Your task to perform on an android device: Clear the cart on bestbuy.com. Add "jbl flip 4" to the cart on bestbuy.com Image 0: 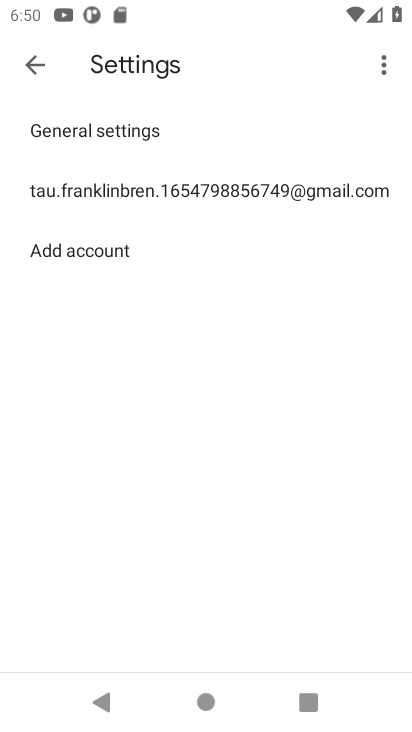
Step 0: press home button
Your task to perform on an android device: Clear the cart on bestbuy.com. Add "jbl flip 4" to the cart on bestbuy.com Image 1: 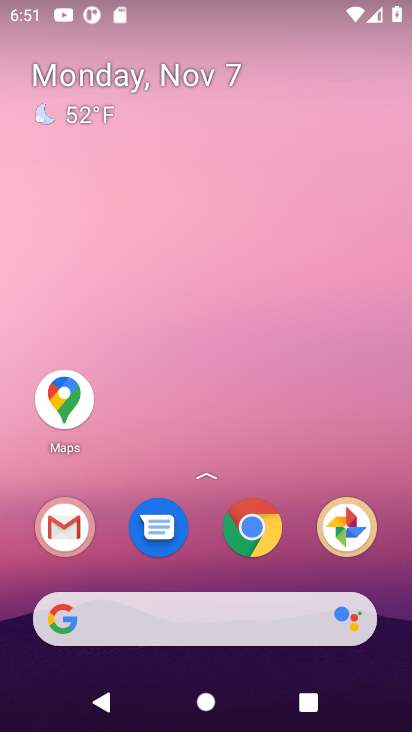
Step 1: click (247, 550)
Your task to perform on an android device: Clear the cart on bestbuy.com. Add "jbl flip 4" to the cart on bestbuy.com Image 2: 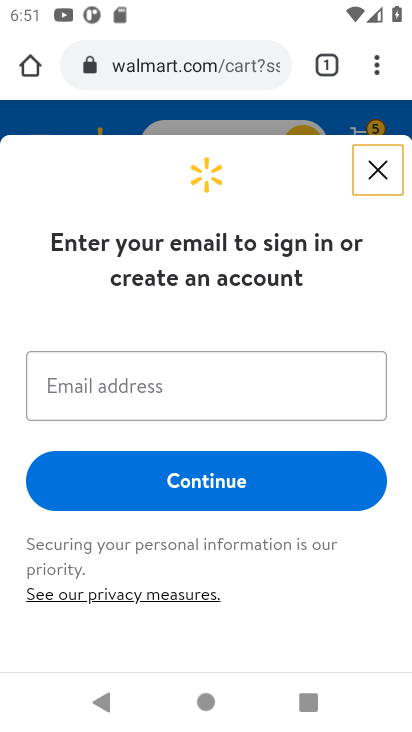
Step 2: click (131, 71)
Your task to perform on an android device: Clear the cart on bestbuy.com. Add "jbl flip 4" to the cart on bestbuy.com Image 3: 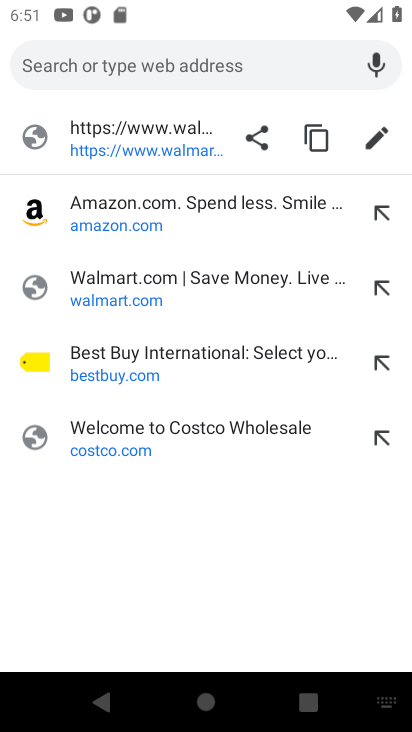
Step 3: type "bestbuy.com"
Your task to perform on an android device: Clear the cart on bestbuy.com. Add "jbl flip 4" to the cart on bestbuy.com Image 4: 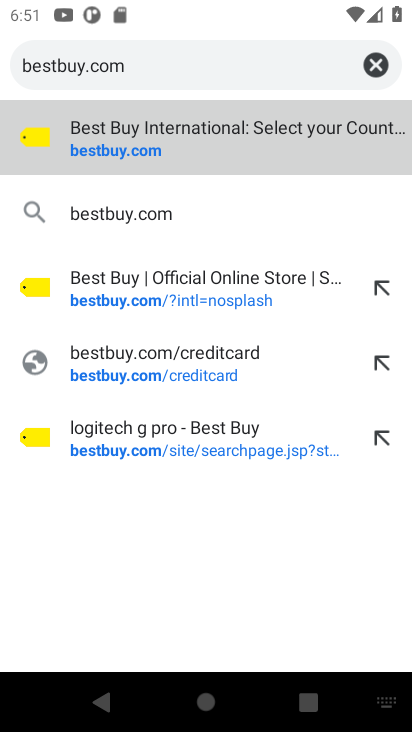
Step 4: click (190, 135)
Your task to perform on an android device: Clear the cart on bestbuy.com. Add "jbl flip 4" to the cart on bestbuy.com Image 5: 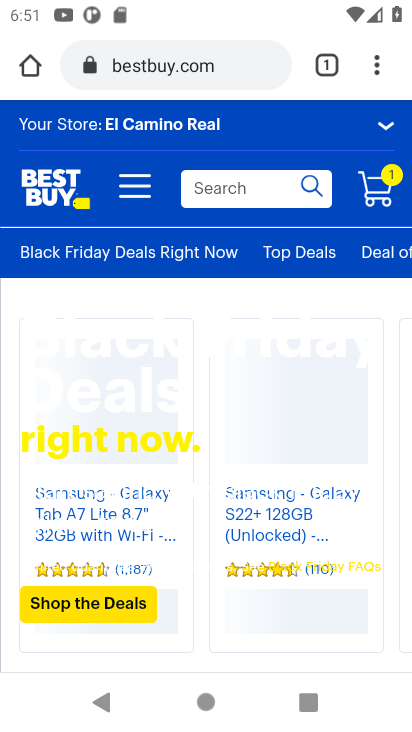
Step 5: click (249, 193)
Your task to perform on an android device: Clear the cart on bestbuy.com. Add "jbl flip 4" to the cart on bestbuy.com Image 6: 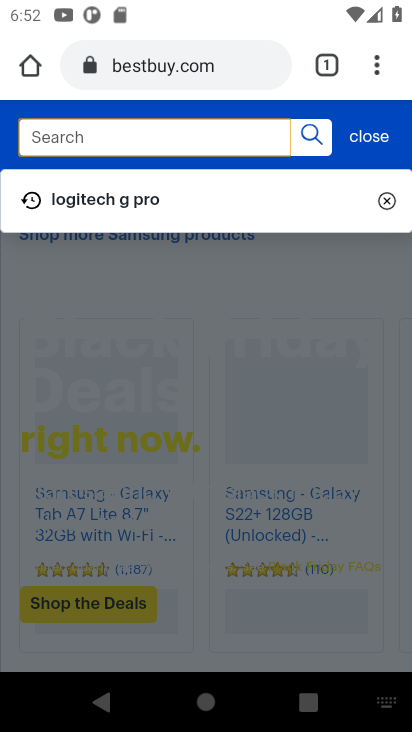
Step 6: type "jbl flip 4"
Your task to perform on an android device: Clear the cart on bestbuy.com. Add "jbl flip 4" to the cart on bestbuy.com Image 7: 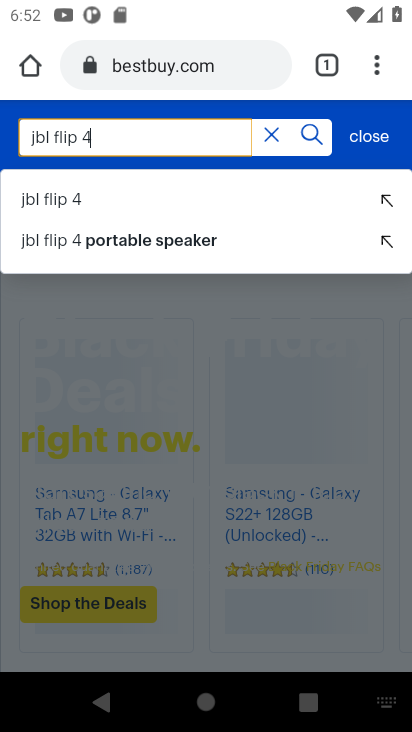
Step 7: type "rr"
Your task to perform on an android device: Clear the cart on bestbuy.com. Add "jbl flip 4" to the cart on bestbuy.com Image 8: 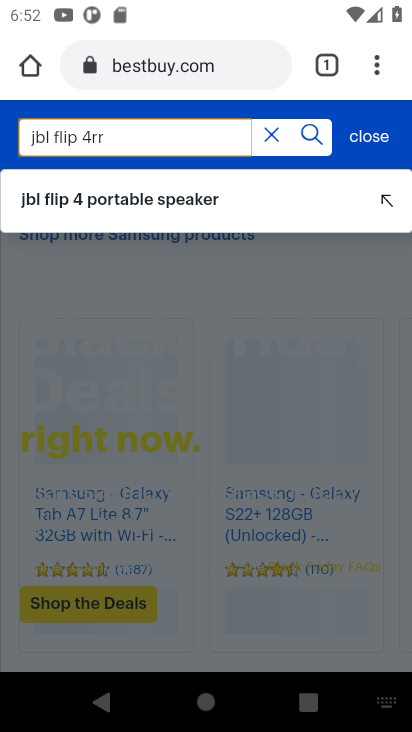
Step 8: click (243, 191)
Your task to perform on an android device: Clear the cart on bestbuy.com. Add "jbl flip 4" to the cart on bestbuy.com Image 9: 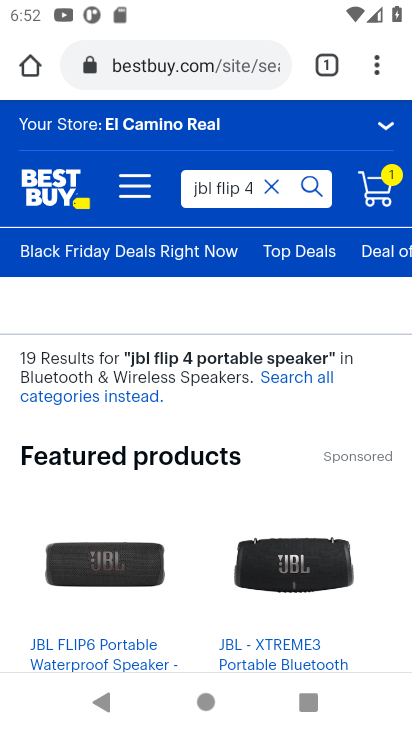
Step 9: task complete